Your task to perform on an android device: Open calendar and show me the second week of next month Image 0: 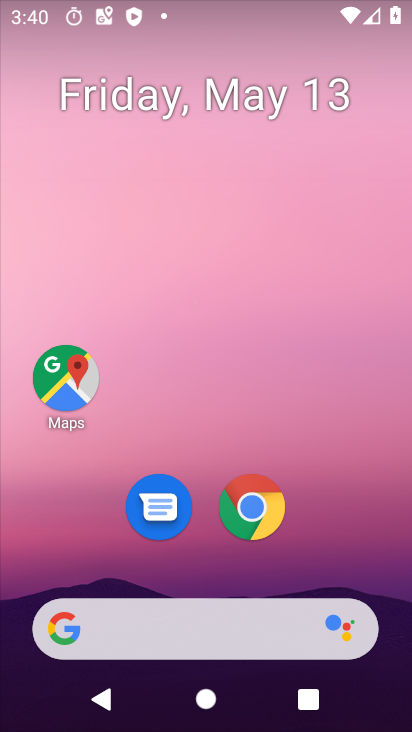
Step 0: drag from (324, 509) to (274, 7)
Your task to perform on an android device: Open calendar and show me the second week of next month Image 1: 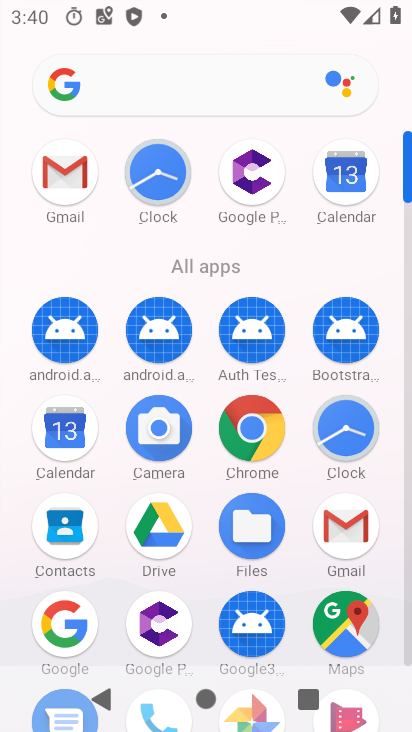
Step 1: click (334, 146)
Your task to perform on an android device: Open calendar and show me the second week of next month Image 2: 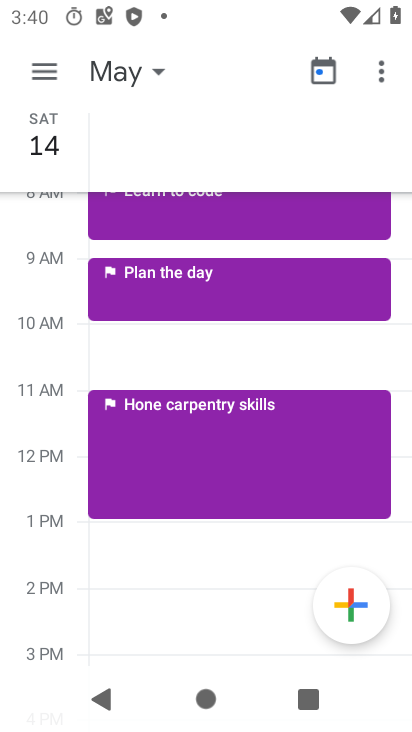
Step 2: click (124, 74)
Your task to perform on an android device: Open calendar and show me the second week of next month Image 3: 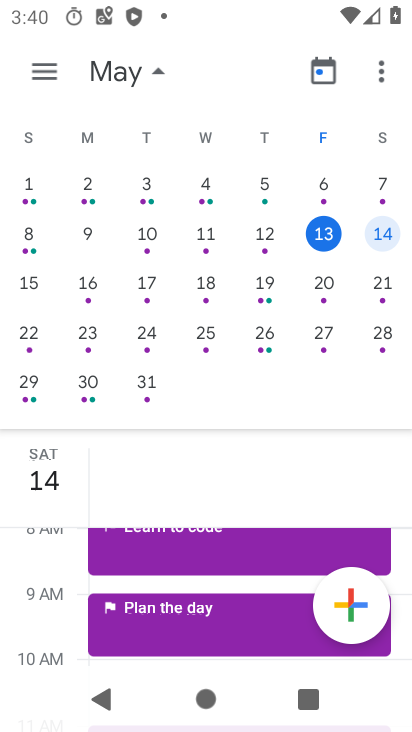
Step 3: drag from (381, 301) to (6, 205)
Your task to perform on an android device: Open calendar and show me the second week of next month Image 4: 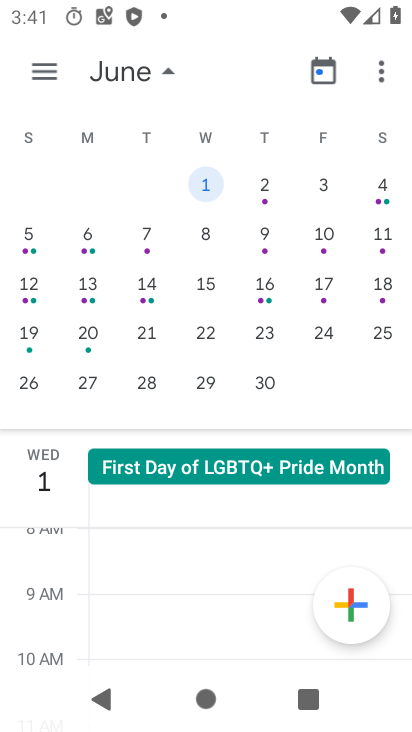
Step 4: click (62, 67)
Your task to perform on an android device: Open calendar and show me the second week of next month Image 5: 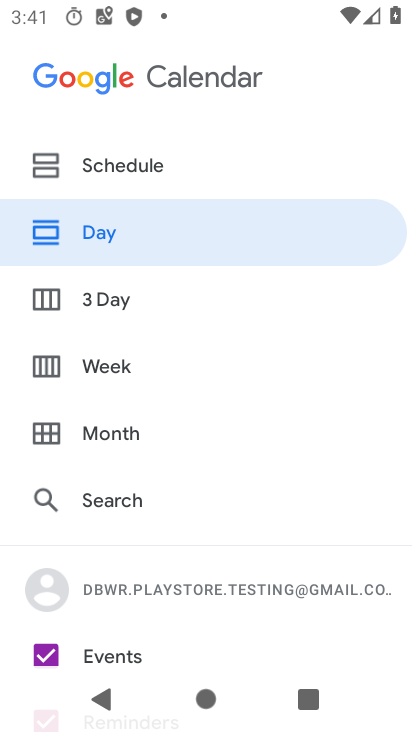
Step 5: click (119, 366)
Your task to perform on an android device: Open calendar and show me the second week of next month Image 6: 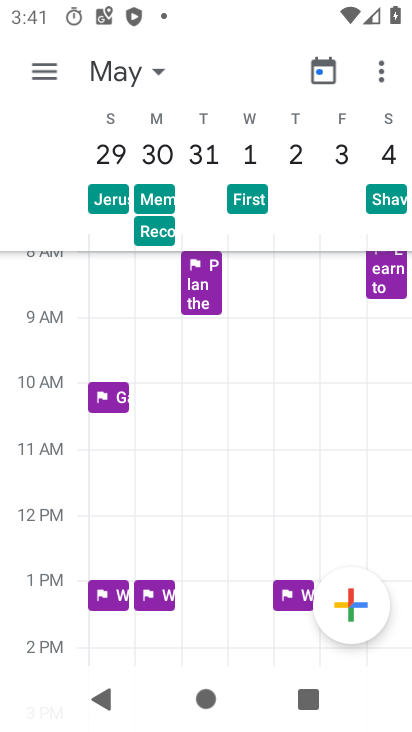
Step 6: task complete